Your task to perform on an android device: Go to display settings Image 0: 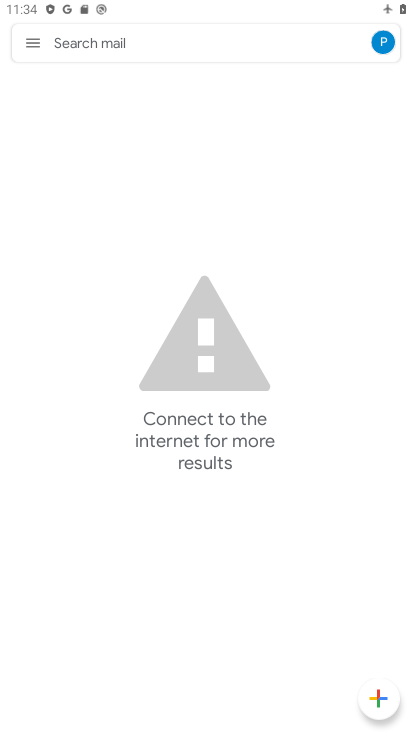
Step 0: press home button
Your task to perform on an android device: Go to display settings Image 1: 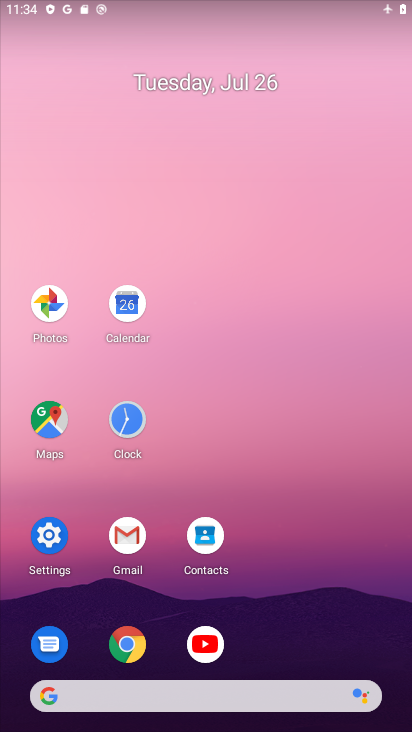
Step 1: click (50, 539)
Your task to perform on an android device: Go to display settings Image 2: 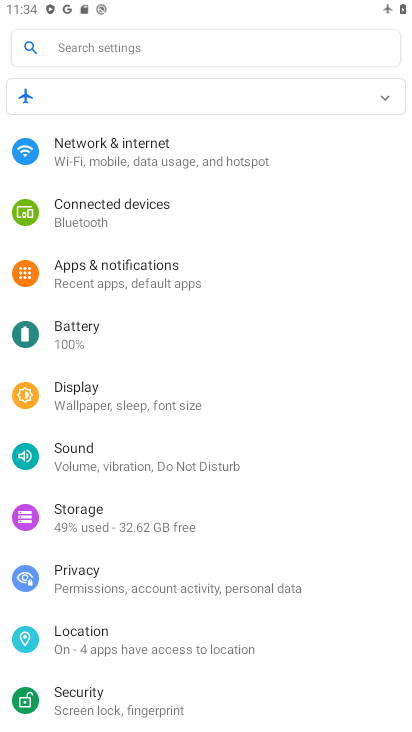
Step 2: click (76, 382)
Your task to perform on an android device: Go to display settings Image 3: 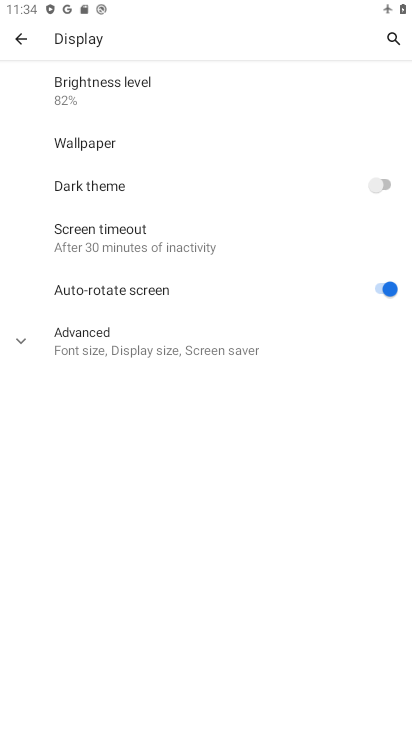
Step 3: task complete